Your task to perform on an android device: check out phone information Image 0: 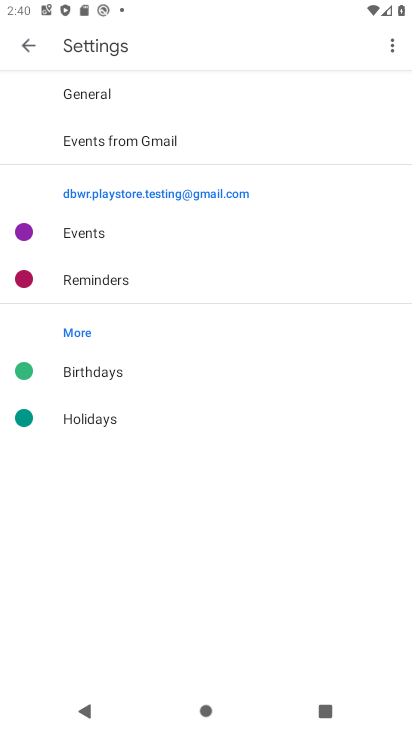
Step 0: press home button
Your task to perform on an android device: check out phone information Image 1: 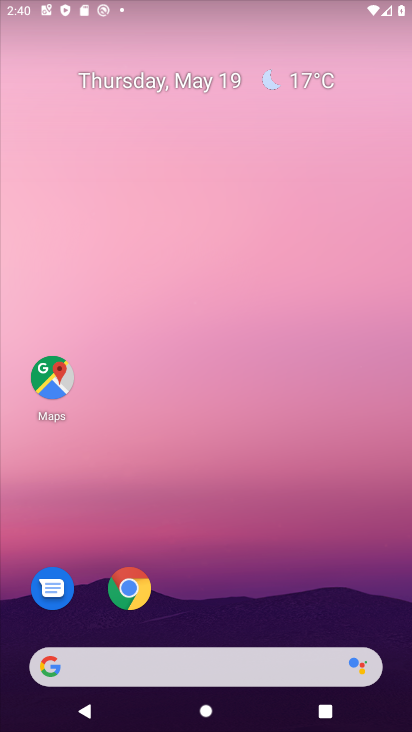
Step 1: drag from (251, 490) to (252, 117)
Your task to perform on an android device: check out phone information Image 2: 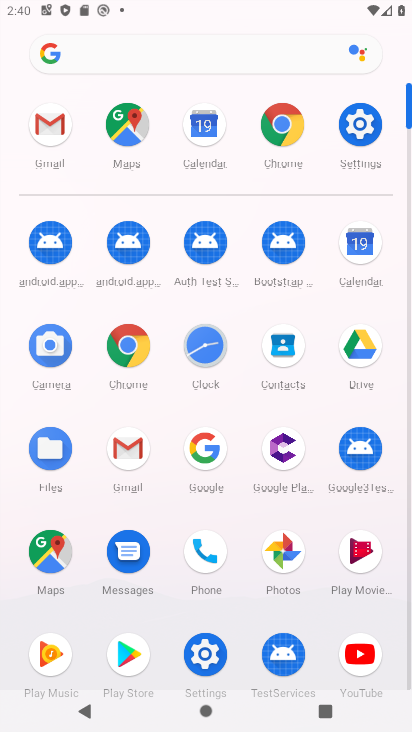
Step 2: click (193, 552)
Your task to perform on an android device: check out phone information Image 3: 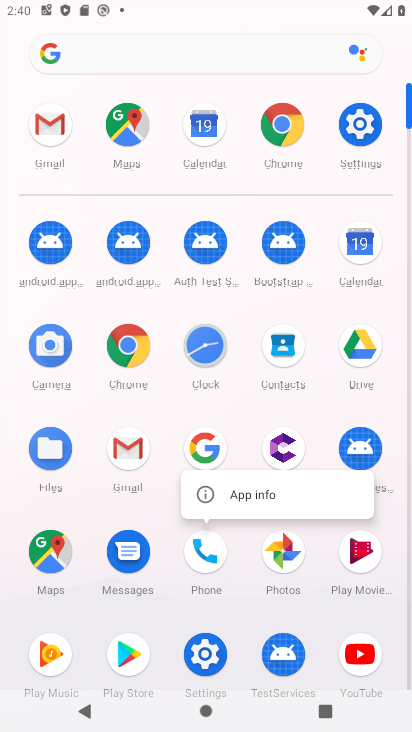
Step 3: click (248, 486)
Your task to perform on an android device: check out phone information Image 4: 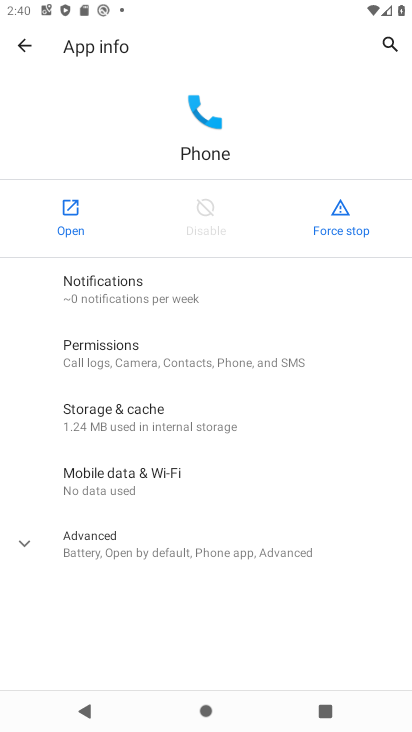
Step 4: task complete